Your task to perform on an android device: Do I have any events tomorrow? Image 0: 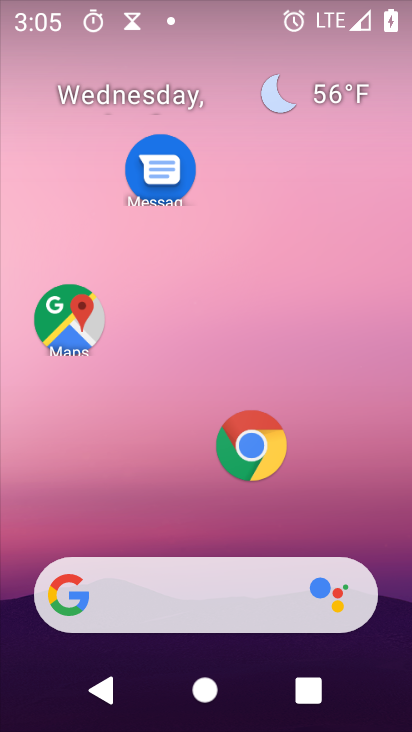
Step 0: drag from (225, 529) to (220, 78)
Your task to perform on an android device: Do I have any events tomorrow? Image 1: 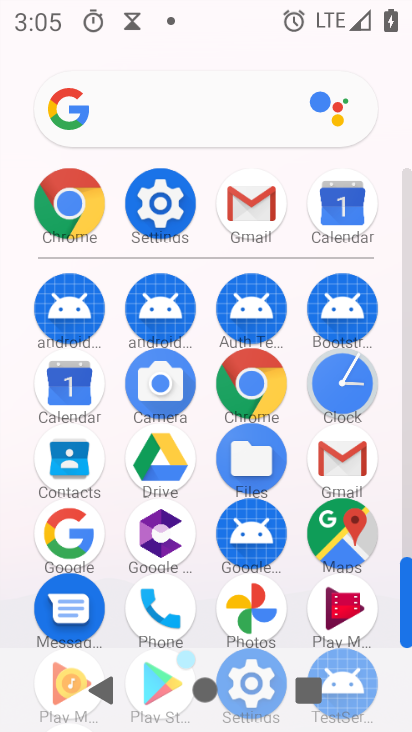
Step 1: drag from (207, 274) to (201, 153)
Your task to perform on an android device: Do I have any events tomorrow? Image 2: 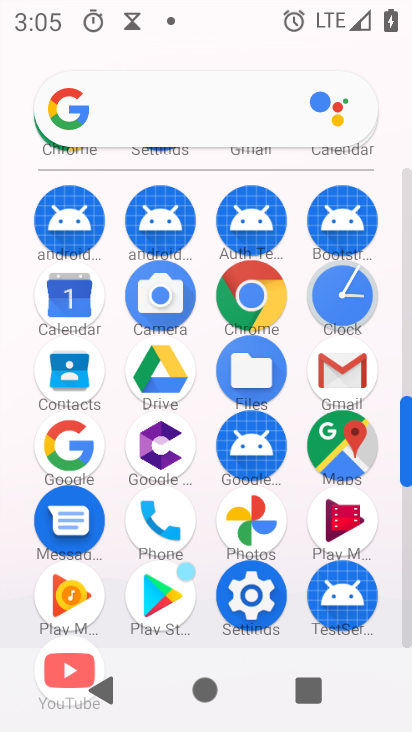
Step 2: click (73, 323)
Your task to perform on an android device: Do I have any events tomorrow? Image 3: 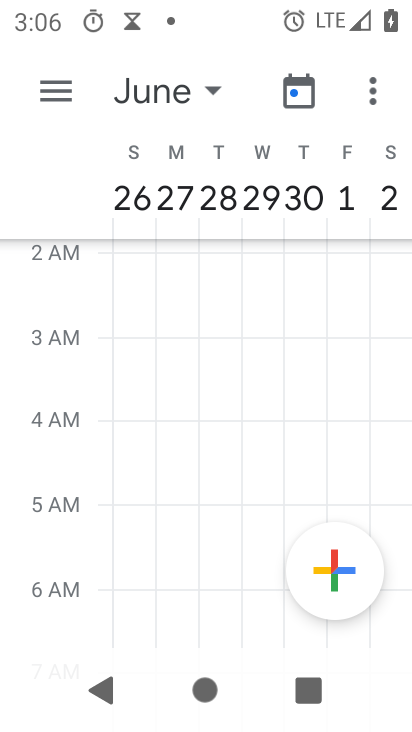
Step 3: click (206, 97)
Your task to perform on an android device: Do I have any events tomorrow? Image 4: 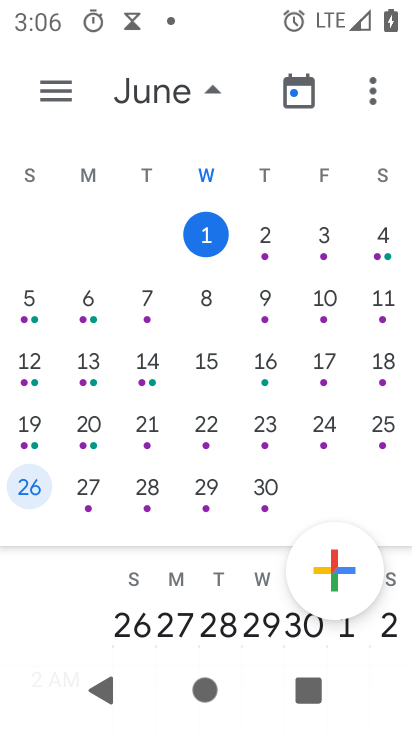
Step 4: click (218, 229)
Your task to perform on an android device: Do I have any events tomorrow? Image 5: 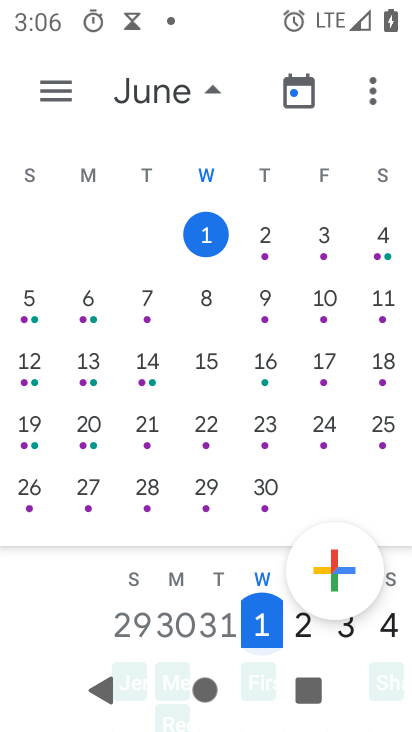
Step 5: click (207, 92)
Your task to perform on an android device: Do I have any events tomorrow? Image 6: 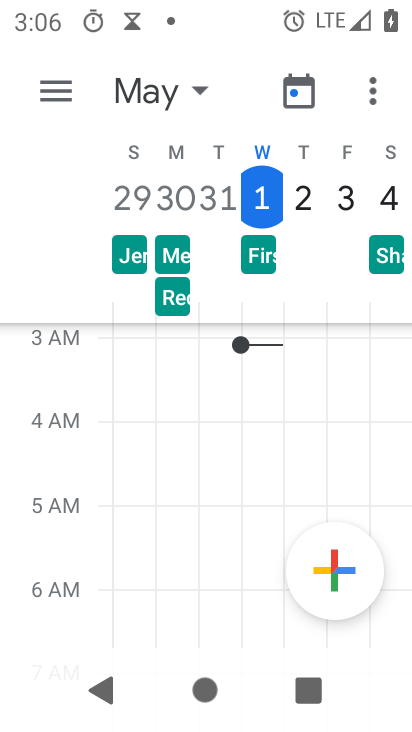
Step 6: click (267, 216)
Your task to perform on an android device: Do I have any events tomorrow? Image 7: 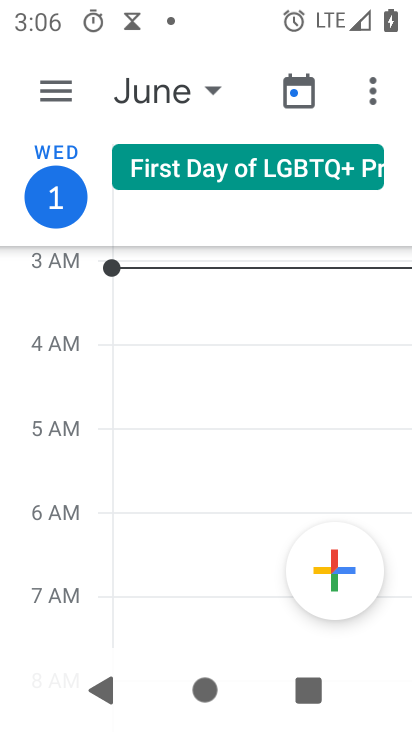
Step 7: task complete